Your task to perform on an android device: toggle notifications settings in the gmail app Image 0: 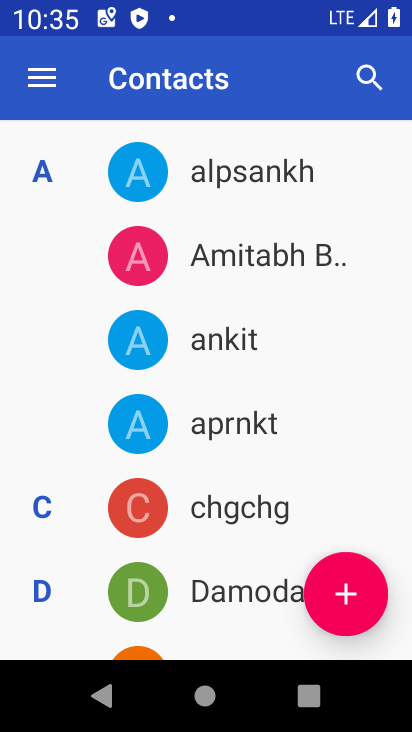
Step 0: press home button
Your task to perform on an android device: toggle notifications settings in the gmail app Image 1: 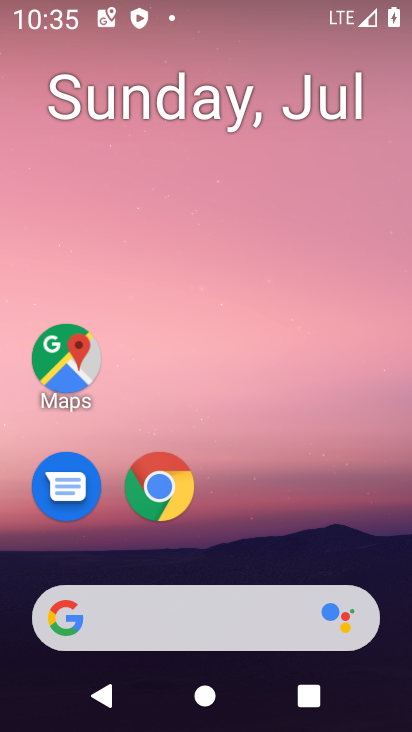
Step 1: drag from (341, 533) to (347, 161)
Your task to perform on an android device: toggle notifications settings in the gmail app Image 2: 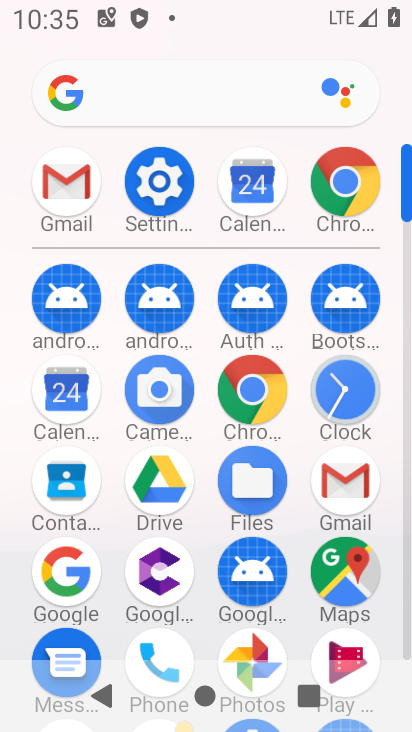
Step 2: click (350, 480)
Your task to perform on an android device: toggle notifications settings in the gmail app Image 3: 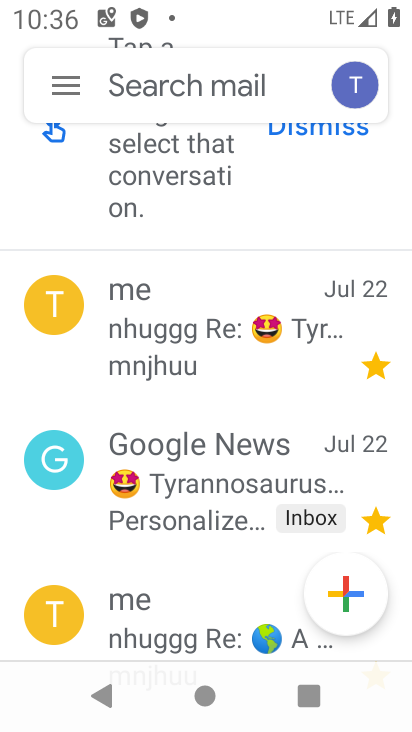
Step 3: click (69, 94)
Your task to perform on an android device: toggle notifications settings in the gmail app Image 4: 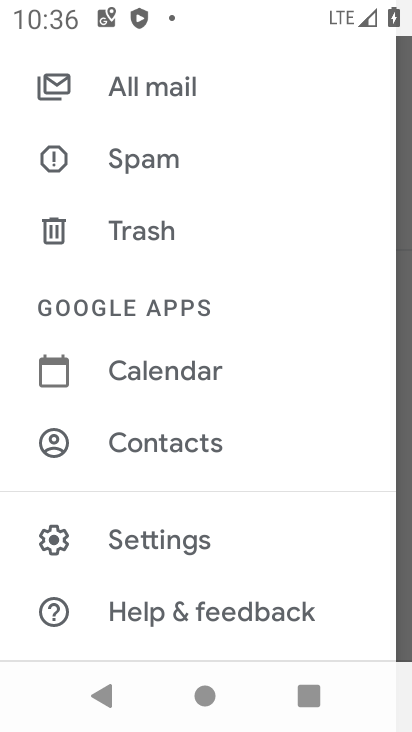
Step 4: click (239, 533)
Your task to perform on an android device: toggle notifications settings in the gmail app Image 5: 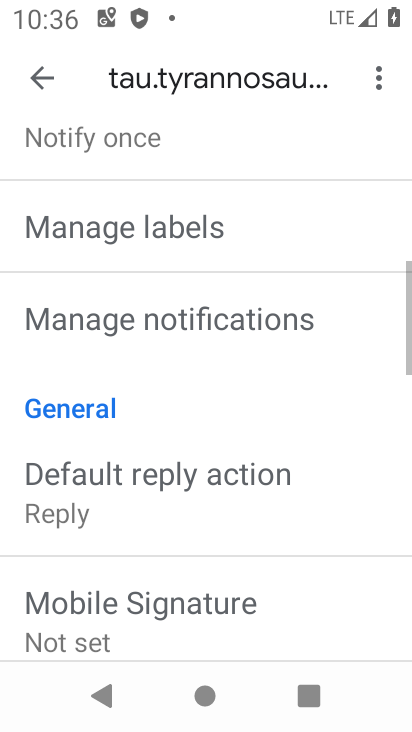
Step 5: drag from (342, 527) to (341, 367)
Your task to perform on an android device: toggle notifications settings in the gmail app Image 6: 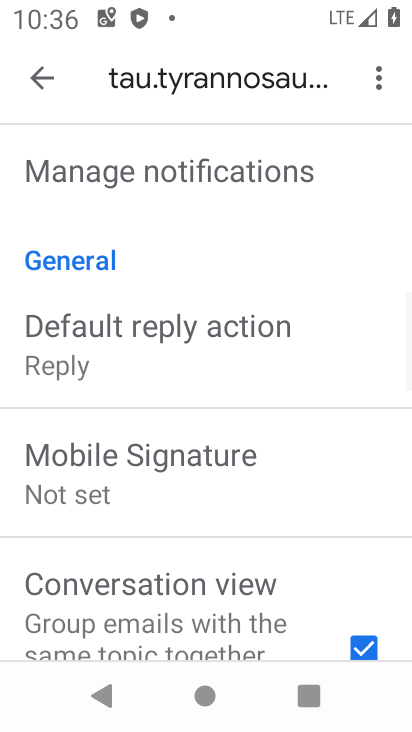
Step 6: drag from (348, 514) to (350, 356)
Your task to perform on an android device: toggle notifications settings in the gmail app Image 7: 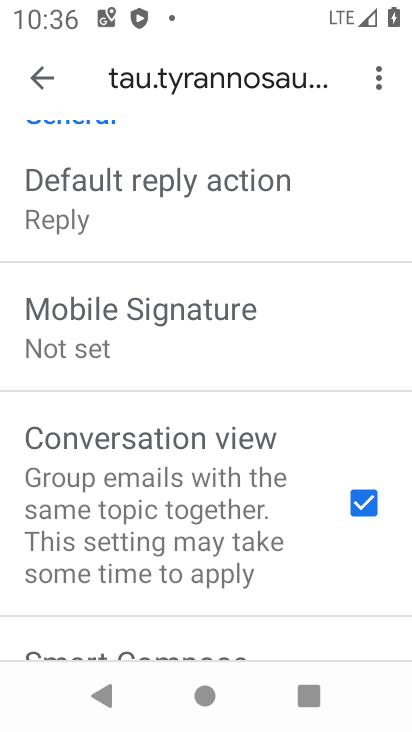
Step 7: drag from (304, 563) to (293, 409)
Your task to perform on an android device: toggle notifications settings in the gmail app Image 8: 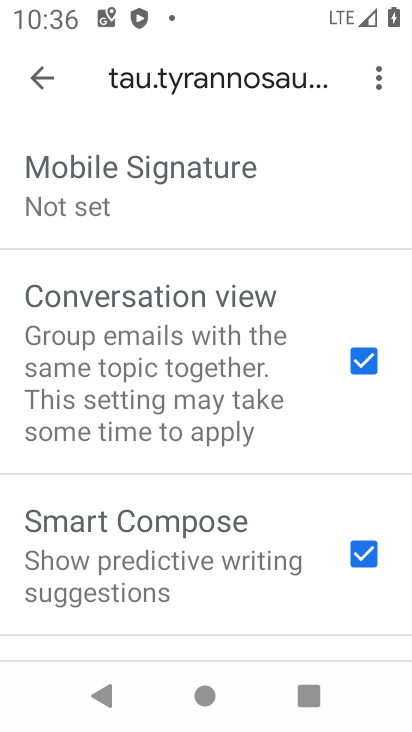
Step 8: drag from (286, 601) to (276, 422)
Your task to perform on an android device: toggle notifications settings in the gmail app Image 9: 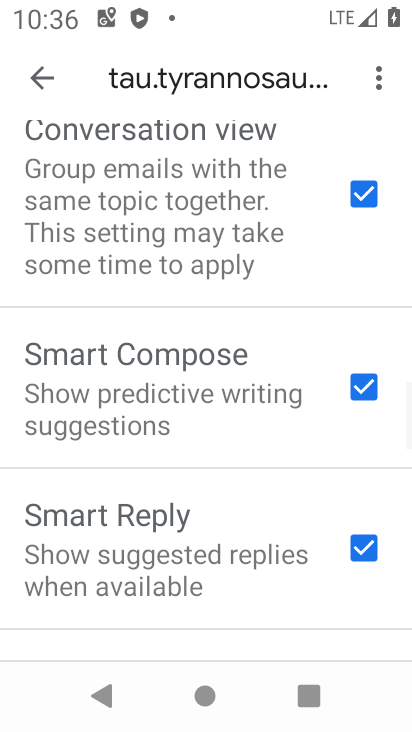
Step 9: drag from (289, 580) to (291, 429)
Your task to perform on an android device: toggle notifications settings in the gmail app Image 10: 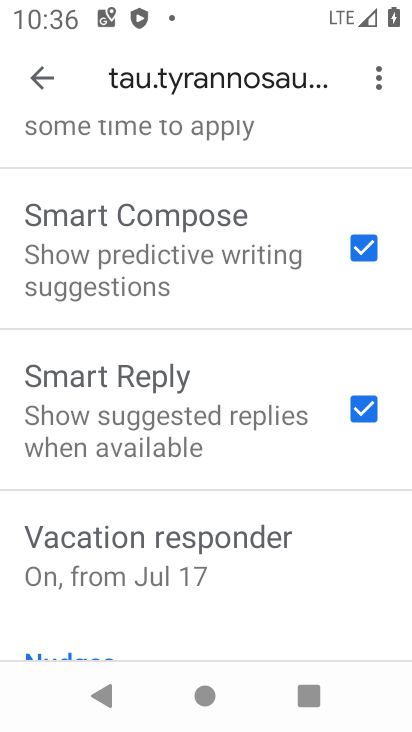
Step 10: drag from (296, 546) to (291, 419)
Your task to perform on an android device: toggle notifications settings in the gmail app Image 11: 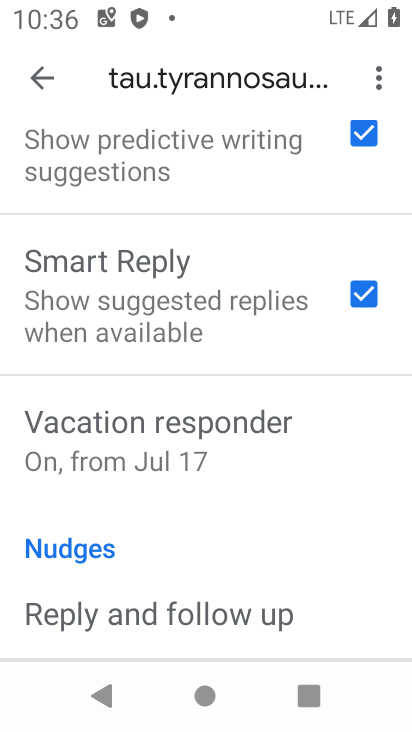
Step 11: drag from (312, 532) to (315, 414)
Your task to perform on an android device: toggle notifications settings in the gmail app Image 12: 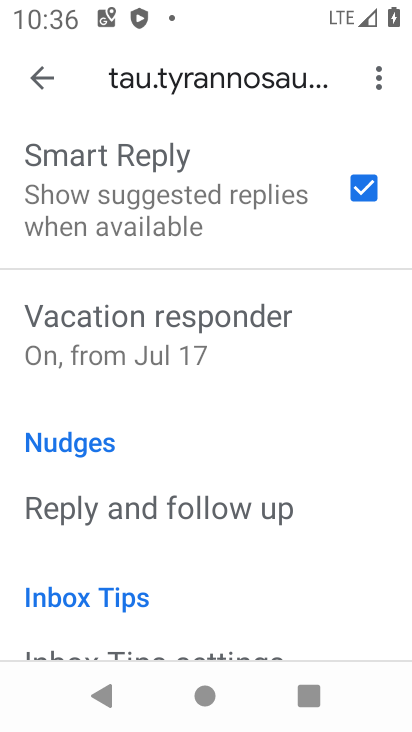
Step 12: drag from (305, 555) to (309, 437)
Your task to perform on an android device: toggle notifications settings in the gmail app Image 13: 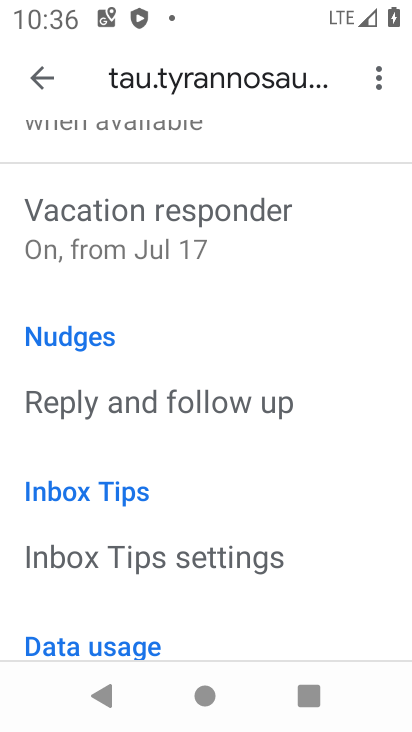
Step 13: drag from (312, 594) to (307, 455)
Your task to perform on an android device: toggle notifications settings in the gmail app Image 14: 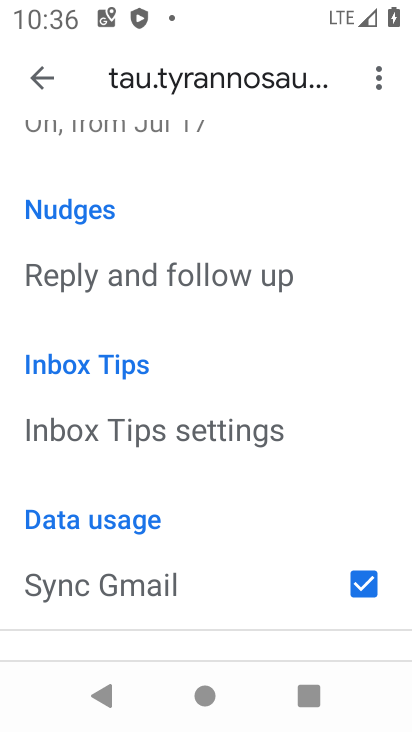
Step 14: drag from (269, 620) to (265, 486)
Your task to perform on an android device: toggle notifications settings in the gmail app Image 15: 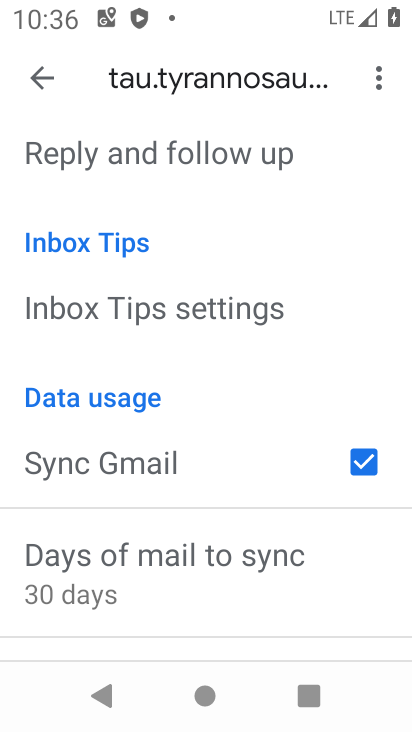
Step 15: drag from (268, 592) to (271, 456)
Your task to perform on an android device: toggle notifications settings in the gmail app Image 16: 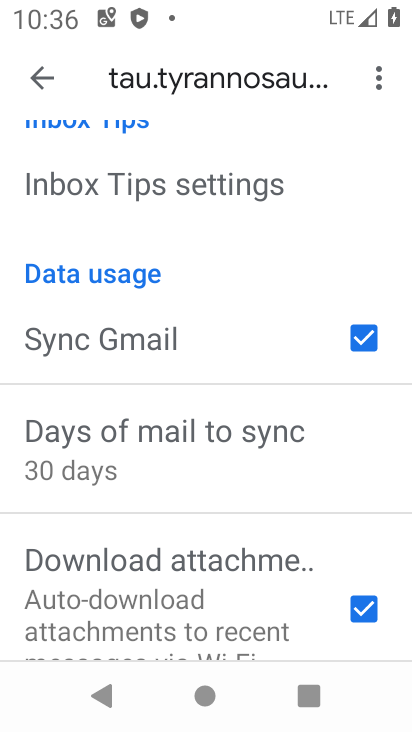
Step 16: drag from (237, 279) to (241, 475)
Your task to perform on an android device: toggle notifications settings in the gmail app Image 17: 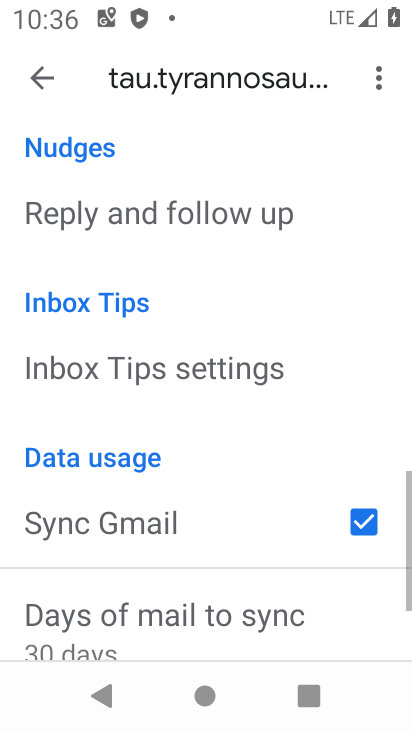
Step 17: drag from (267, 275) to (256, 402)
Your task to perform on an android device: toggle notifications settings in the gmail app Image 18: 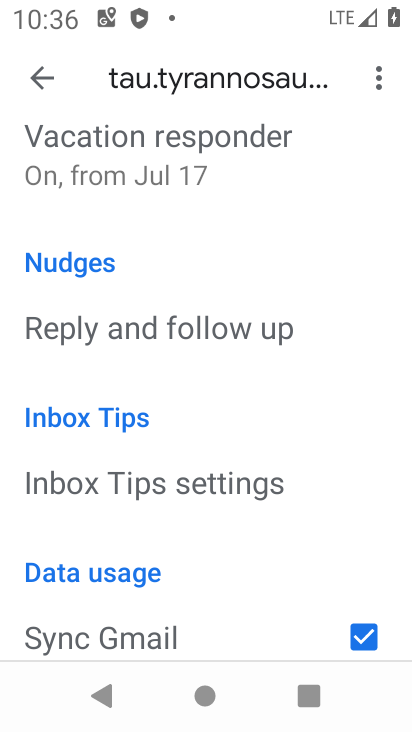
Step 18: drag from (327, 215) to (347, 357)
Your task to perform on an android device: toggle notifications settings in the gmail app Image 19: 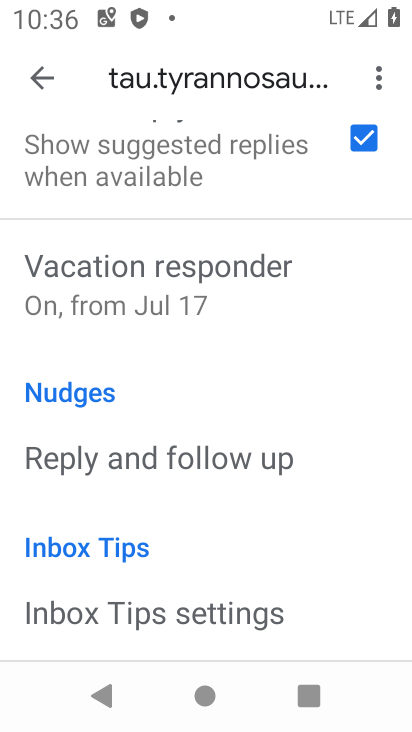
Step 19: drag from (319, 253) to (316, 386)
Your task to perform on an android device: toggle notifications settings in the gmail app Image 20: 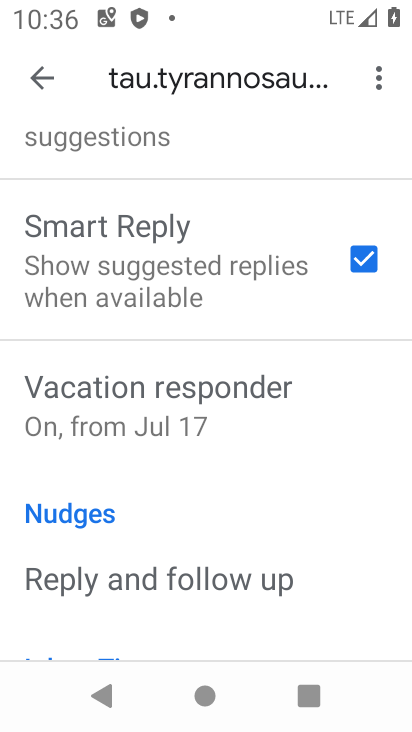
Step 20: drag from (249, 254) to (289, 433)
Your task to perform on an android device: toggle notifications settings in the gmail app Image 21: 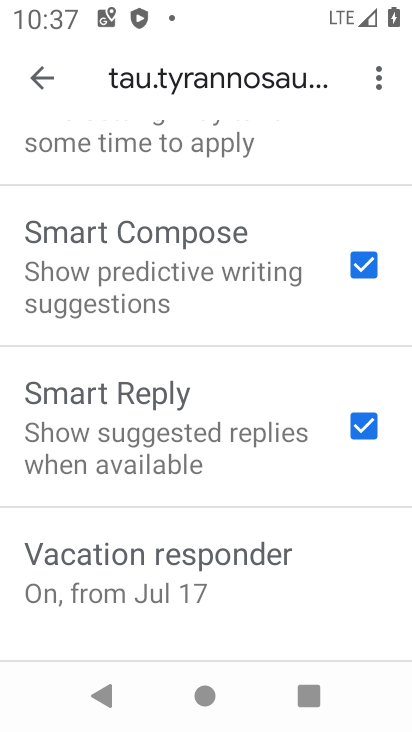
Step 21: drag from (285, 154) to (287, 409)
Your task to perform on an android device: toggle notifications settings in the gmail app Image 22: 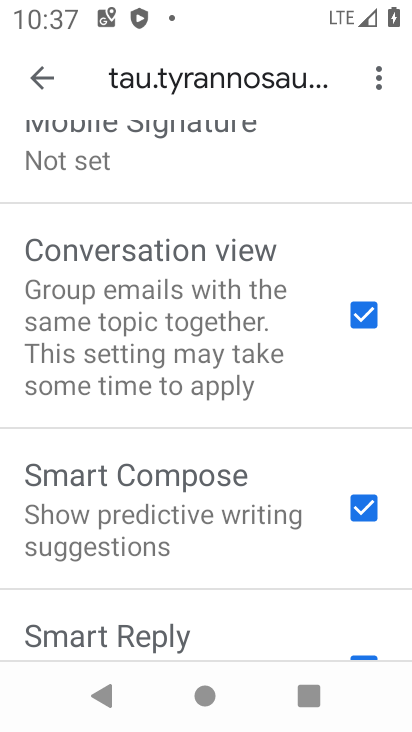
Step 22: drag from (249, 152) to (269, 397)
Your task to perform on an android device: toggle notifications settings in the gmail app Image 23: 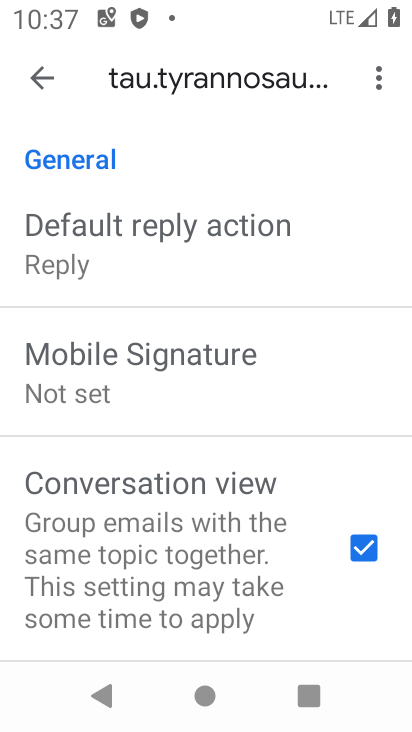
Step 23: drag from (239, 173) to (255, 367)
Your task to perform on an android device: toggle notifications settings in the gmail app Image 24: 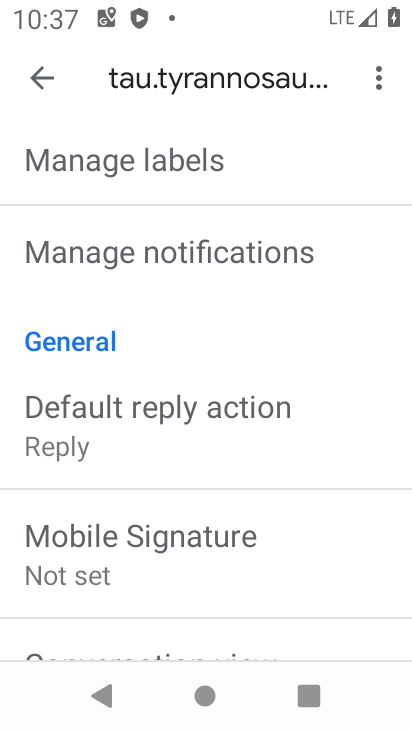
Step 24: click (273, 259)
Your task to perform on an android device: toggle notifications settings in the gmail app Image 25: 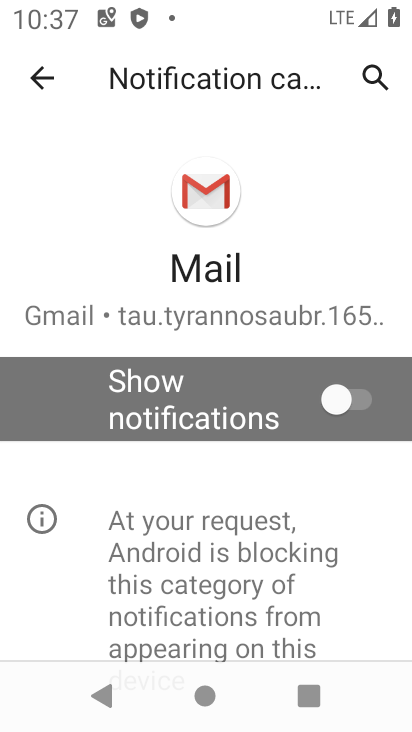
Step 25: click (338, 407)
Your task to perform on an android device: toggle notifications settings in the gmail app Image 26: 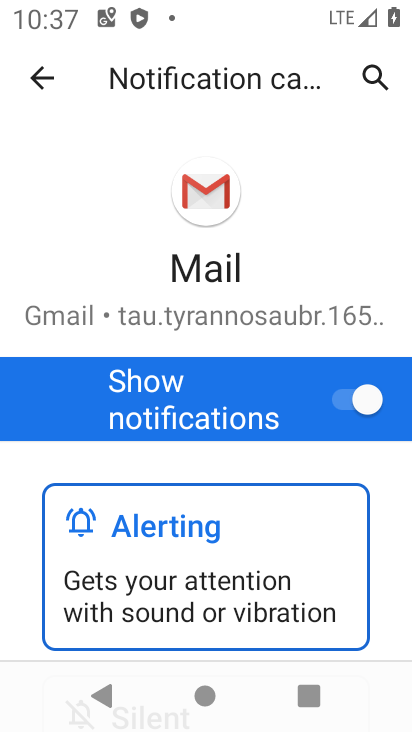
Step 26: task complete